Your task to perform on an android device: Search for seafood restaurants on Google Maps Image 0: 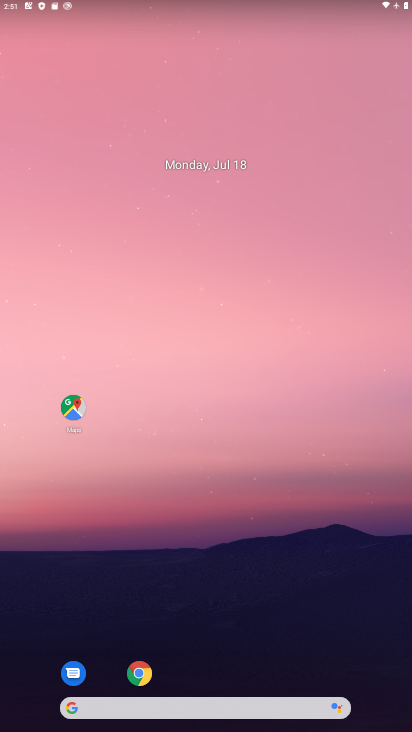
Step 0: drag from (149, 573) to (151, 115)
Your task to perform on an android device: Search for seafood restaurants on Google Maps Image 1: 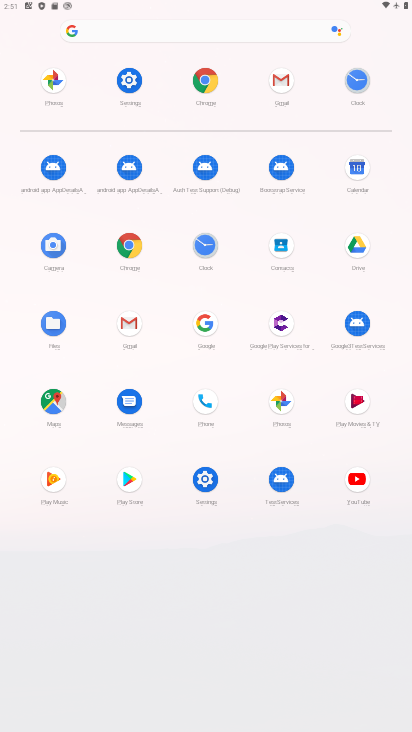
Step 1: click (48, 407)
Your task to perform on an android device: Search for seafood restaurants on Google Maps Image 2: 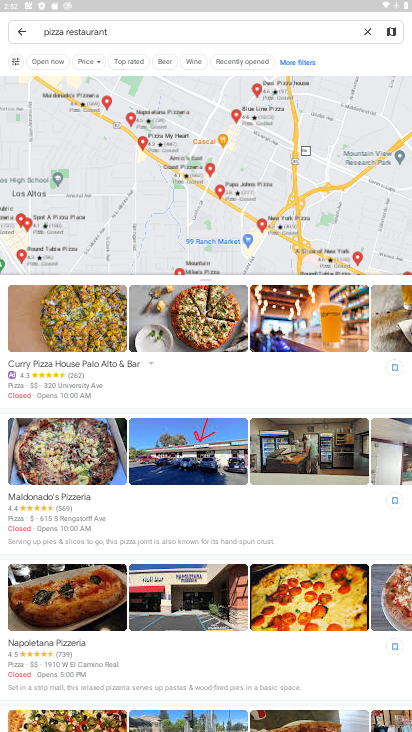
Step 2: click (373, 29)
Your task to perform on an android device: Search for seafood restaurants on Google Maps Image 3: 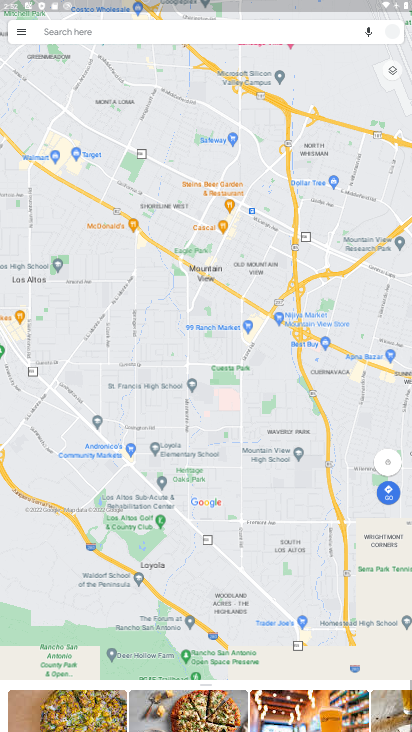
Step 3: click (158, 34)
Your task to perform on an android device: Search for seafood restaurants on Google Maps Image 4: 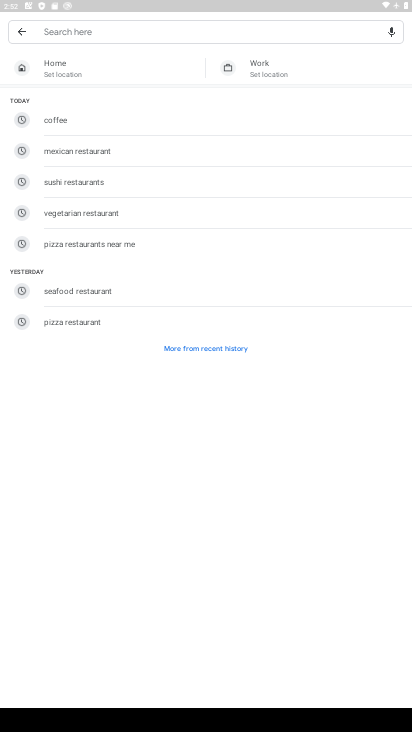
Step 4: click (130, 296)
Your task to perform on an android device: Search for seafood restaurants on Google Maps Image 5: 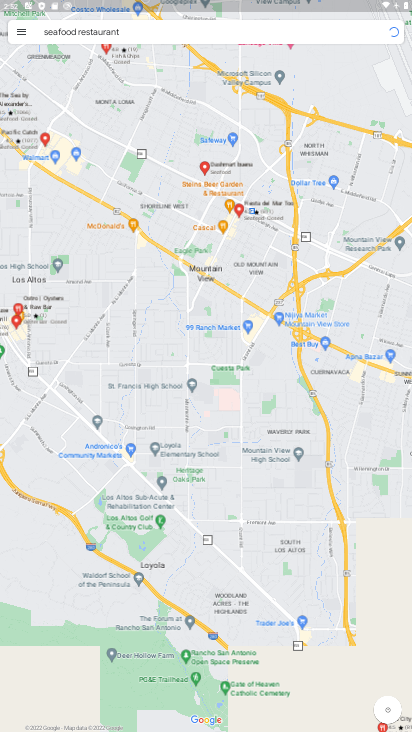
Step 5: task complete